Your task to perform on an android device: install app "Grab" Image 0: 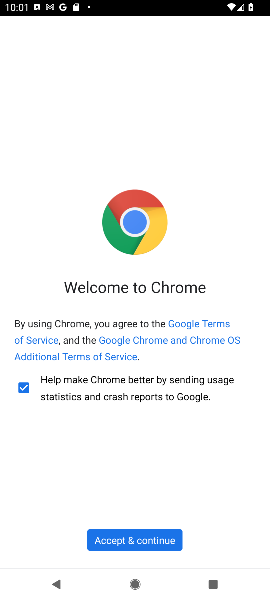
Step 0: press home button
Your task to perform on an android device: install app "Grab" Image 1: 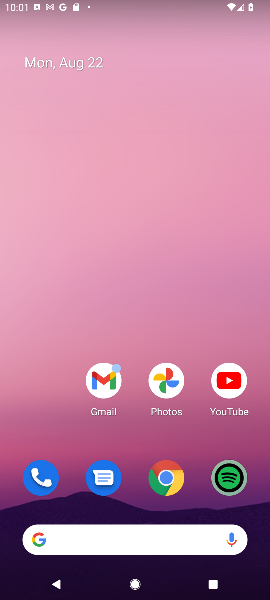
Step 1: drag from (128, 516) to (141, 175)
Your task to perform on an android device: install app "Grab" Image 2: 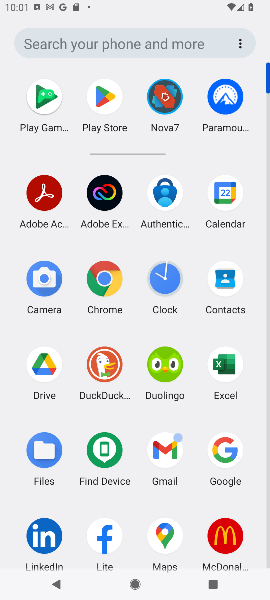
Step 2: click (98, 109)
Your task to perform on an android device: install app "Grab" Image 3: 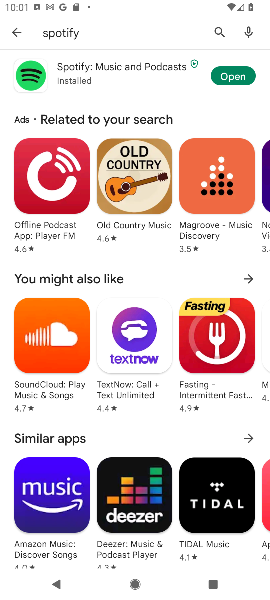
Step 3: click (222, 37)
Your task to perform on an android device: install app "Grab" Image 4: 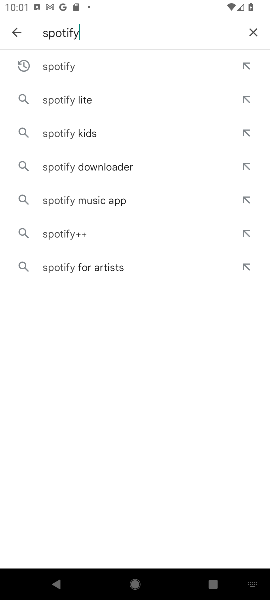
Step 4: click (246, 40)
Your task to perform on an android device: install app "Grab" Image 5: 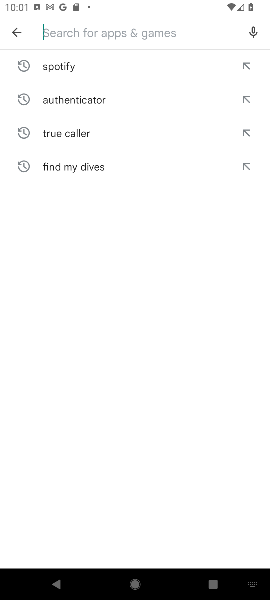
Step 5: type "grab"
Your task to perform on an android device: install app "Grab" Image 6: 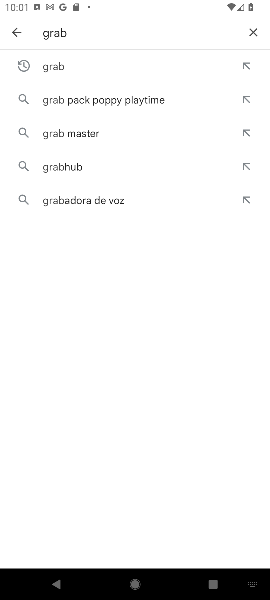
Step 6: click (86, 53)
Your task to perform on an android device: install app "Grab" Image 7: 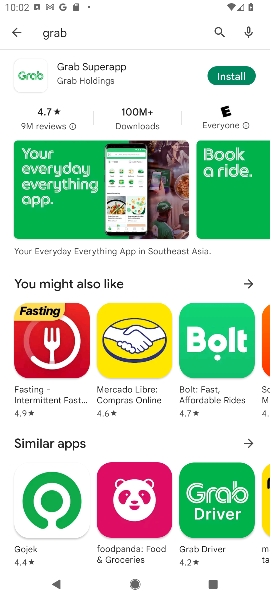
Step 7: click (230, 90)
Your task to perform on an android device: install app "Grab" Image 8: 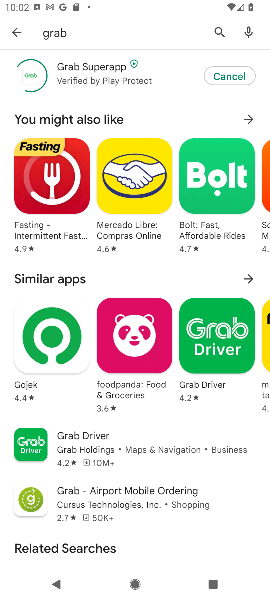
Step 8: task complete